Your task to perform on an android device: Open Google Maps and go to "Timeline" Image 0: 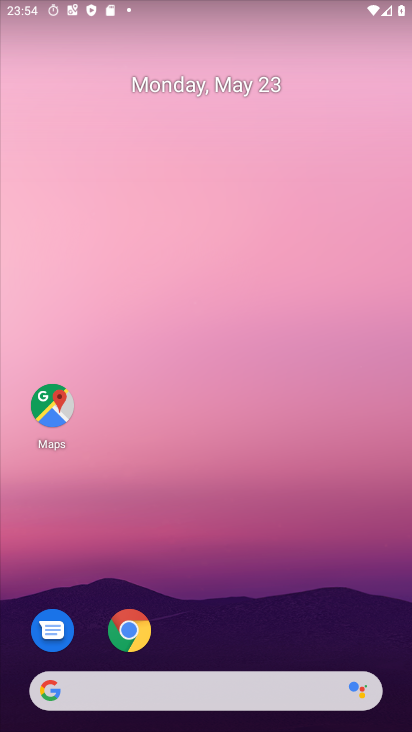
Step 0: click (53, 399)
Your task to perform on an android device: Open Google Maps and go to "Timeline" Image 1: 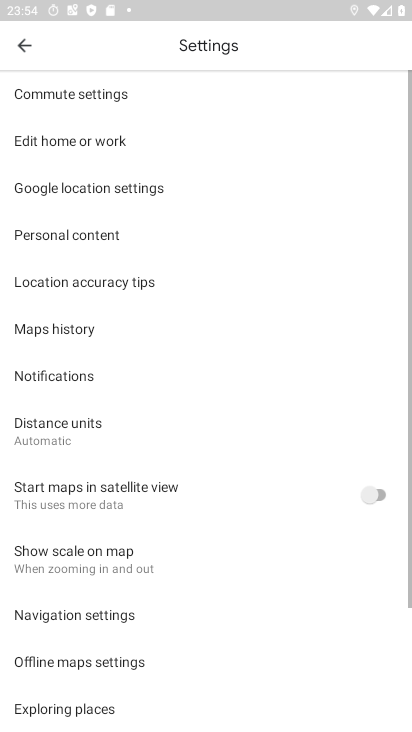
Step 1: click (23, 47)
Your task to perform on an android device: Open Google Maps and go to "Timeline" Image 2: 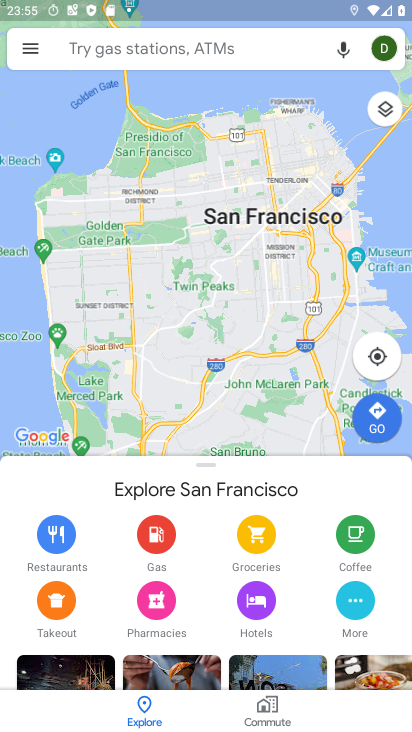
Step 2: click (24, 47)
Your task to perform on an android device: Open Google Maps and go to "Timeline" Image 3: 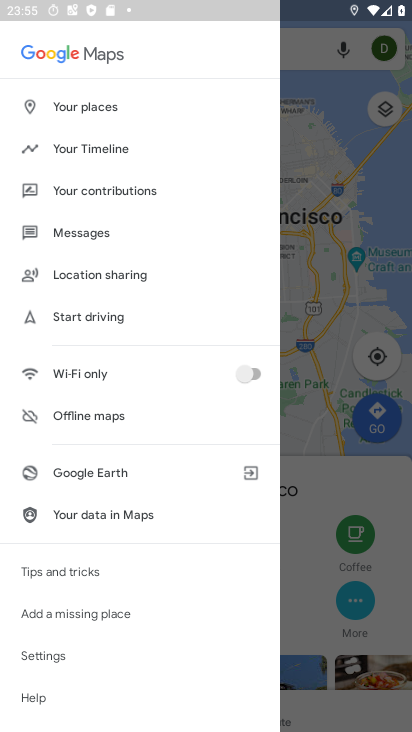
Step 3: click (70, 150)
Your task to perform on an android device: Open Google Maps and go to "Timeline" Image 4: 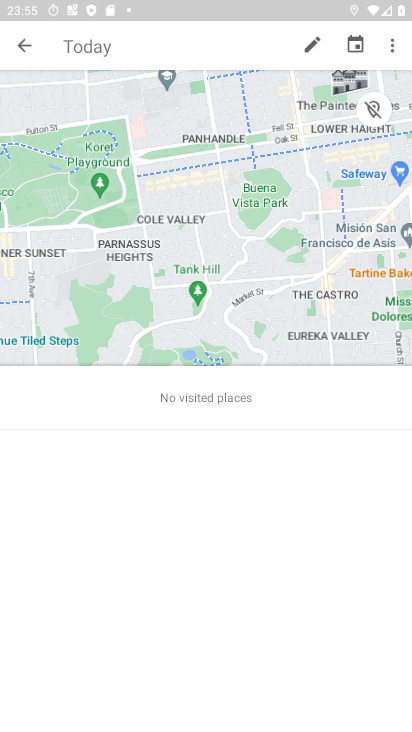
Step 4: task complete